Your task to perform on an android device: Search for macbook pro on bestbuy, select the first entry, add it to the cart, then select checkout. Image 0: 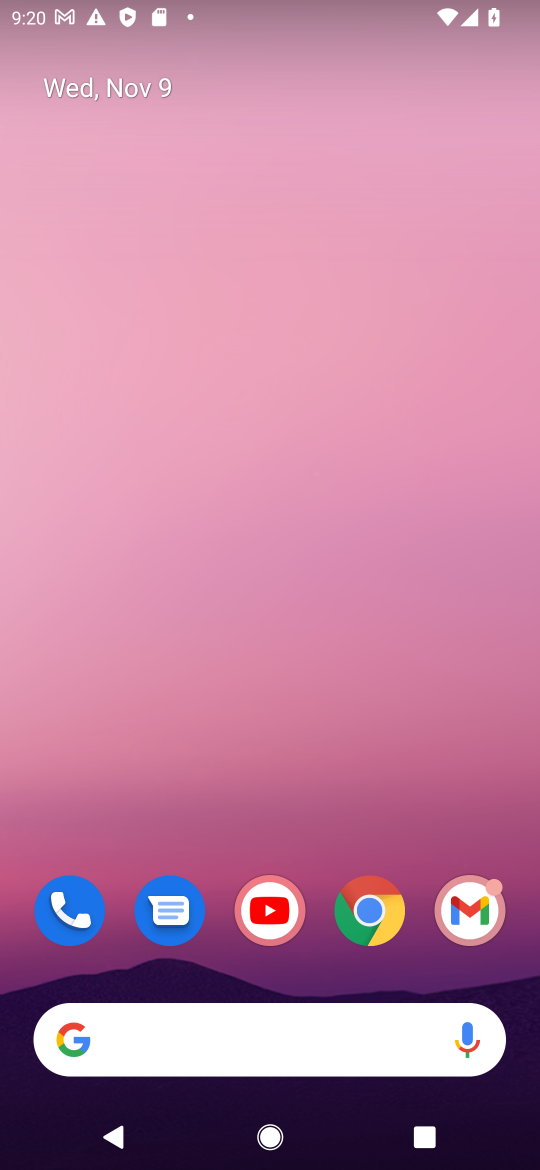
Step 0: click (366, 912)
Your task to perform on an android device: Search for macbook pro on bestbuy, select the first entry, add it to the cart, then select checkout. Image 1: 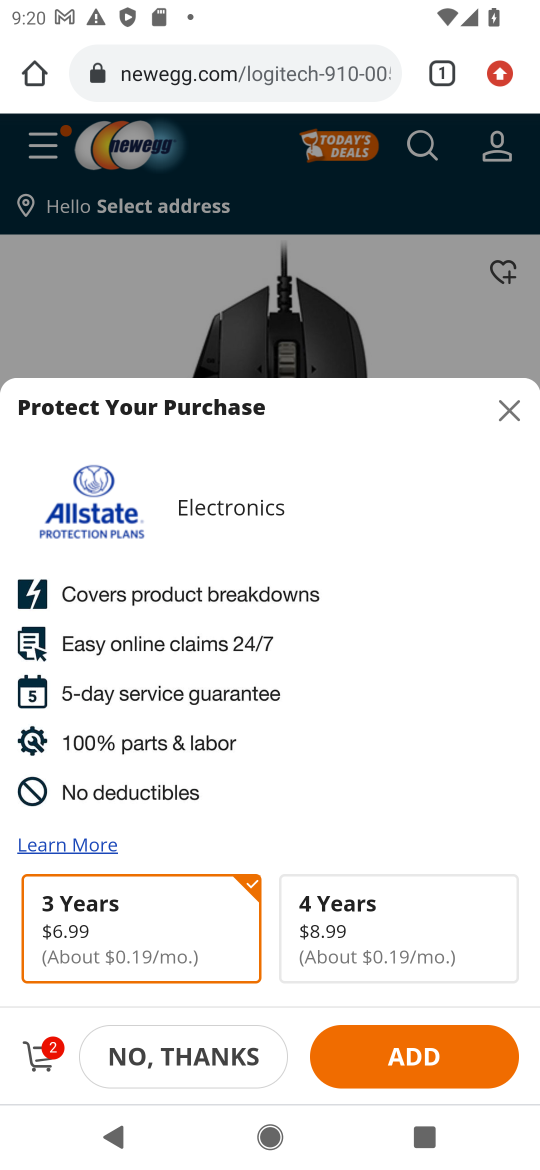
Step 1: click (206, 70)
Your task to perform on an android device: Search for macbook pro on bestbuy, select the first entry, add it to the cart, then select checkout. Image 2: 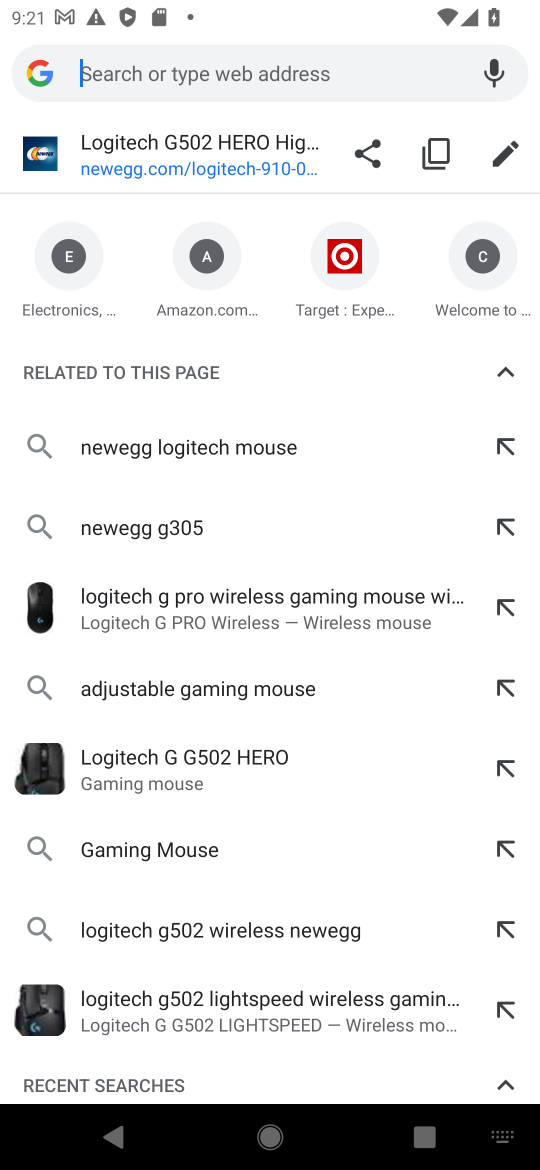
Step 2: type "bestbuy.com"
Your task to perform on an android device: Search for macbook pro on bestbuy, select the first entry, add it to the cart, then select checkout. Image 3: 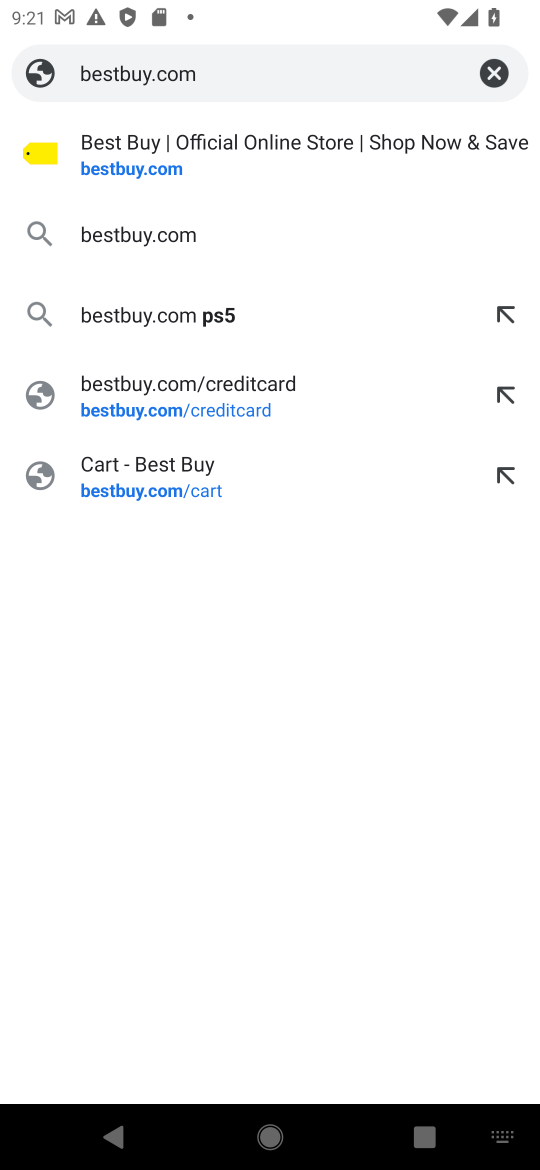
Step 3: click (110, 176)
Your task to perform on an android device: Search for macbook pro on bestbuy, select the first entry, add it to the cart, then select checkout. Image 4: 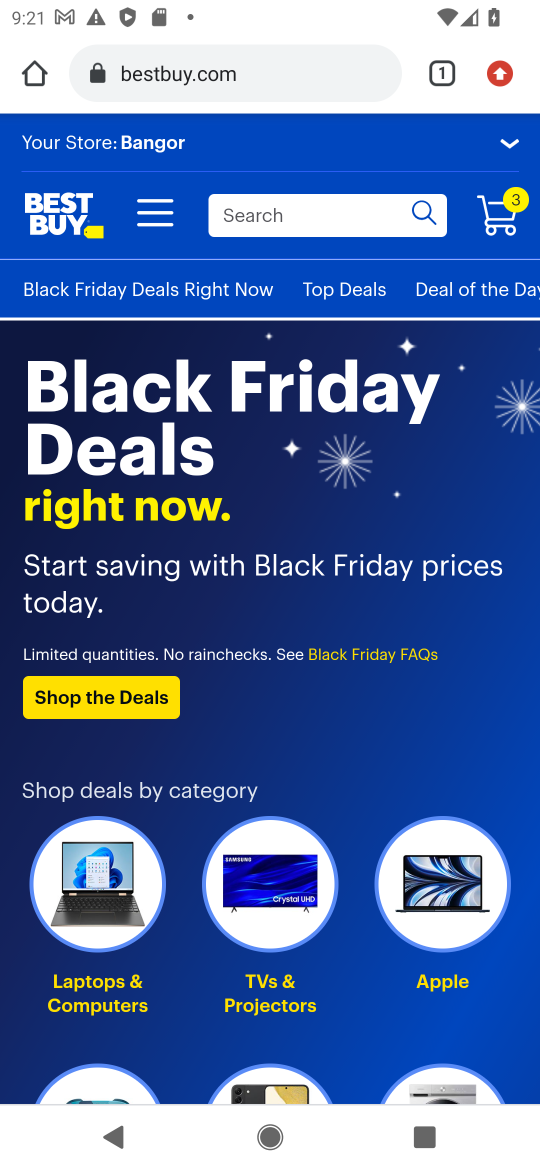
Step 4: click (230, 217)
Your task to perform on an android device: Search for macbook pro on bestbuy, select the first entry, add it to the cart, then select checkout. Image 5: 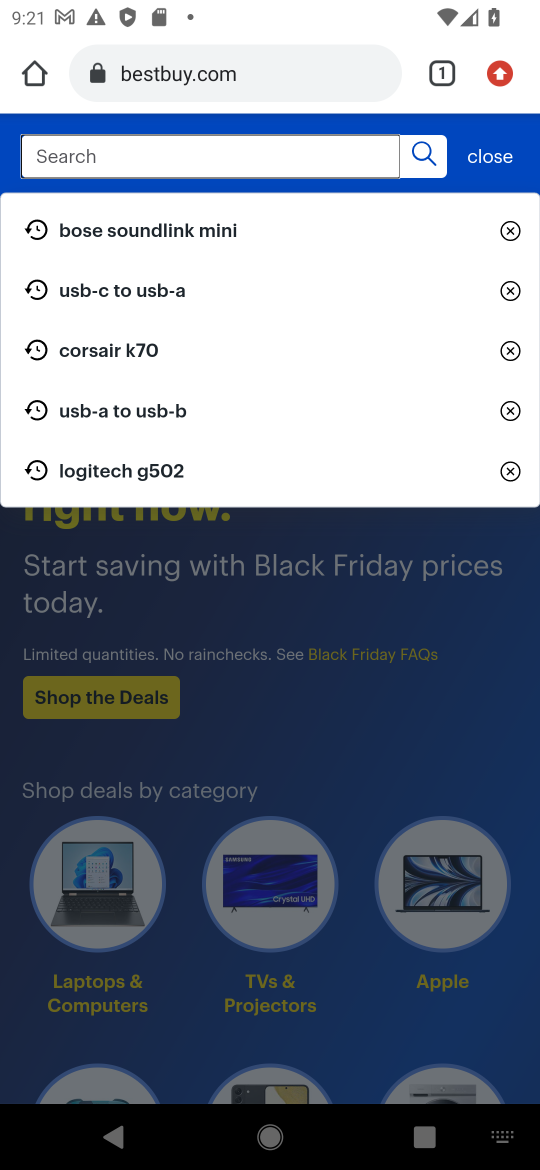
Step 5: type "macbook pro"
Your task to perform on an android device: Search for macbook pro on bestbuy, select the first entry, add it to the cart, then select checkout. Image 6: 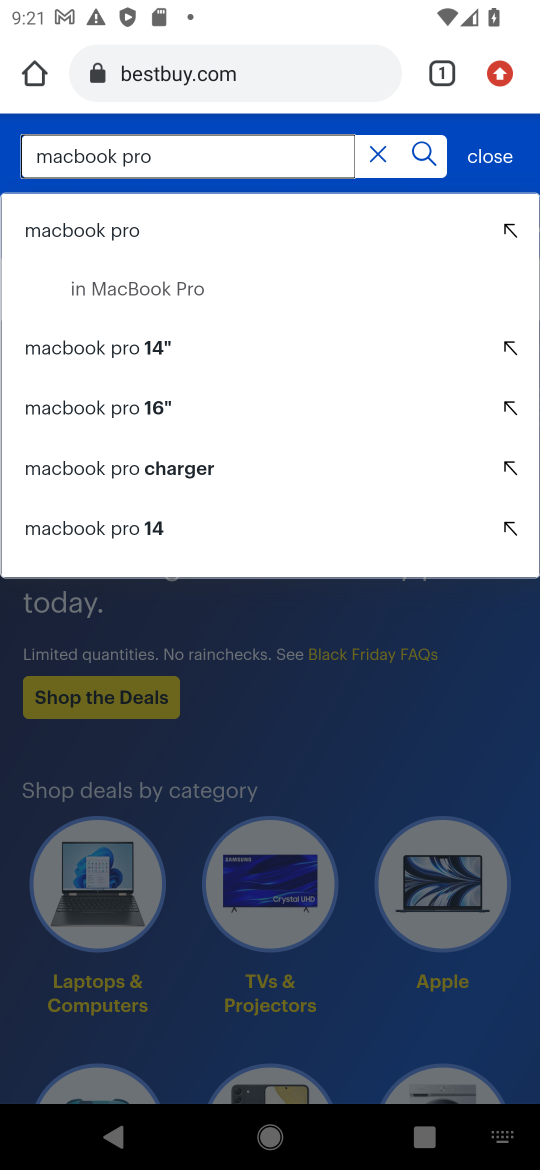
Step 6: click (90, 239)
Your task to perform on an android device: Search for macbook pro on bestbuy, select the first entry, add it to the cart, then select checkout. Image 7: 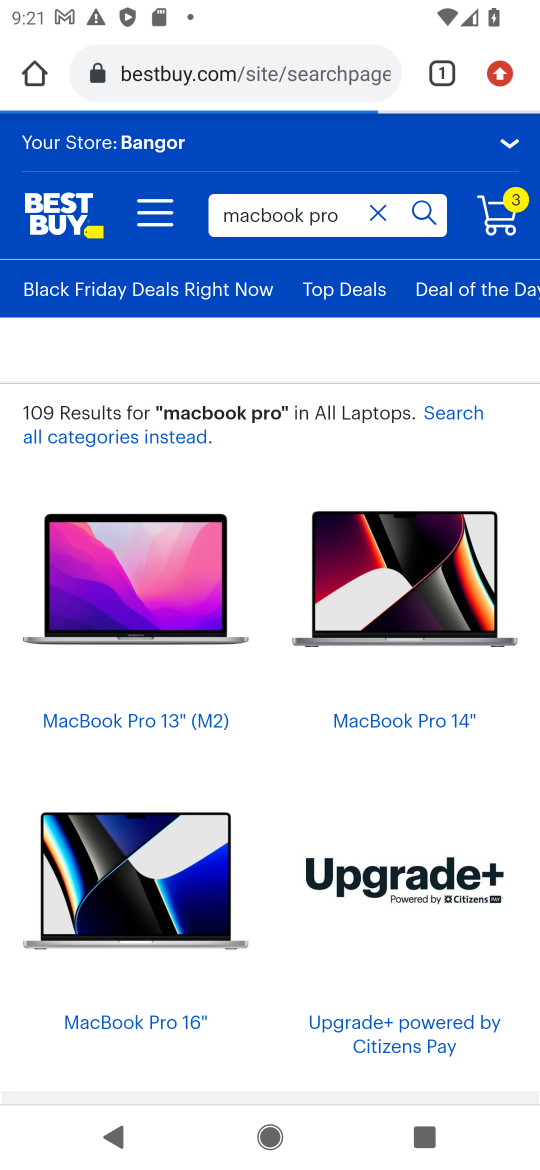
Step 7: drag from (221, 692) to (231, 432)
Your task to perform on an android device: Search for macbook pro on bestbuy, select the first entry, add it to the cart, then select checkout. Image 8: 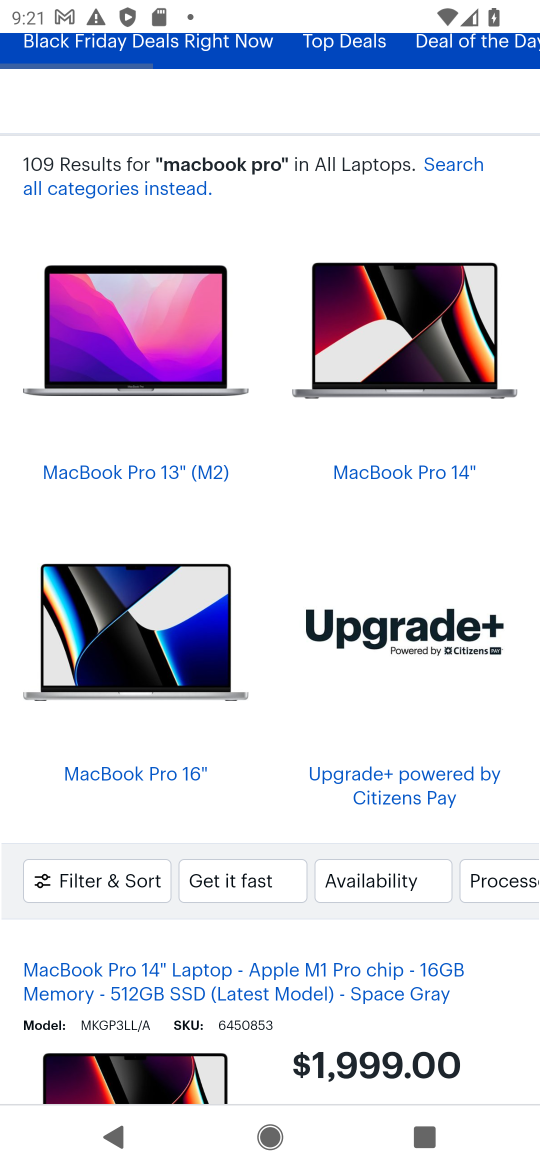
Step 8: drag from (232, 874) to (244, 355)
Your task to perform on an android device: Search for macbook pro on bestbuy, select the first entry, add it to the cart, then select checkout. Image 9: 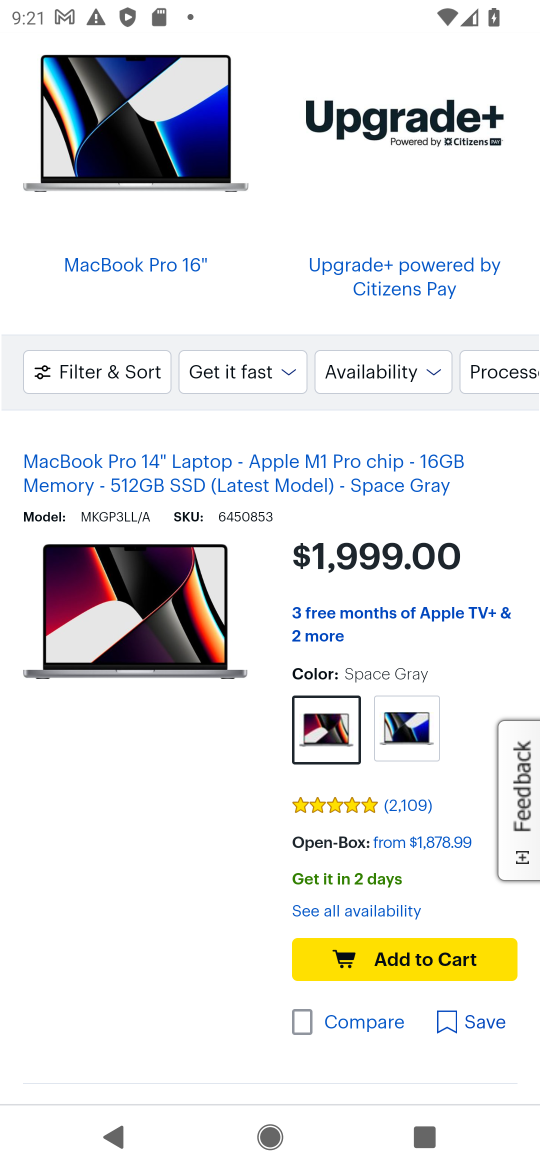
Step 9: click (452, 964)
Your task to perform on an android device: Search for macbook pro on bestbuy, select the first entry, add it to the cart, then select checkout. Image 10: 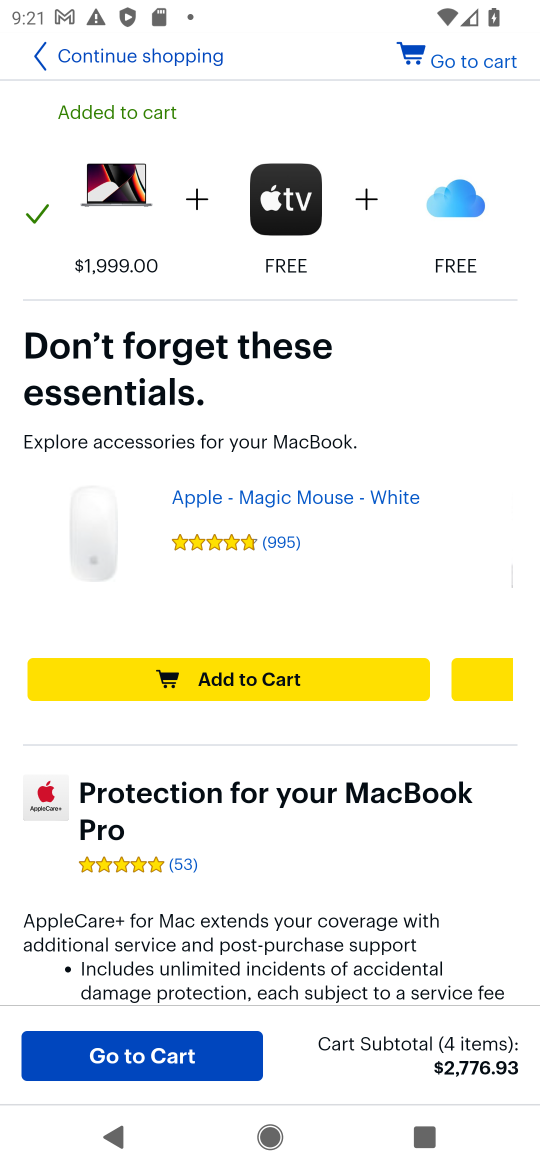
Step 10: click (467, 64)
Your task to perform on an android device: Search for macbook pro on bestbuy, select the first entry, add it to the cart, then select checkout. Image 11: 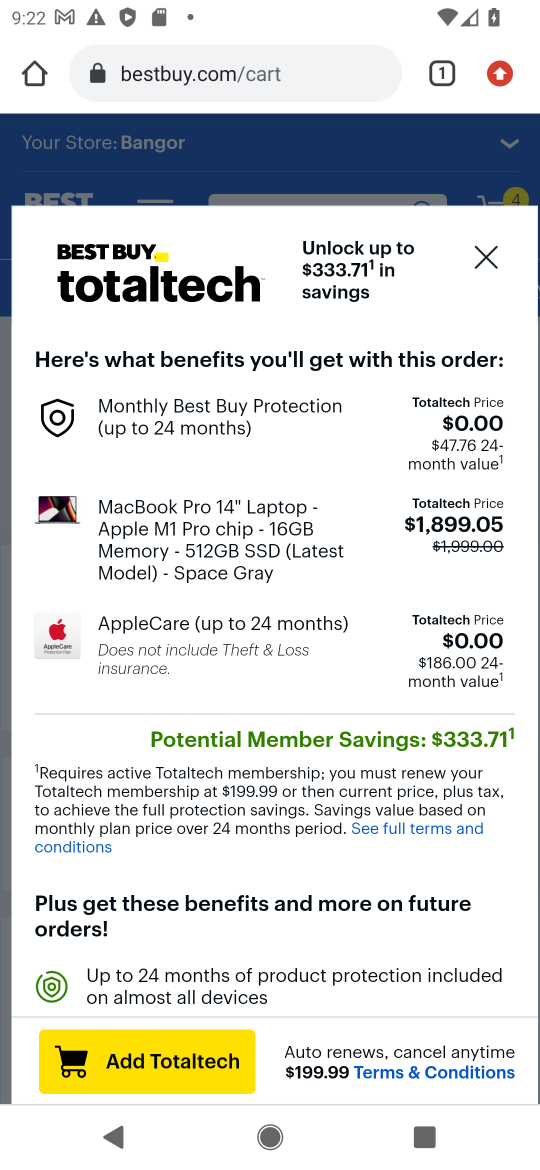
Step 11: click (476, 264)
Your task to perform on an android device: Search for macbook pro on bestbuy, select the first entry, add it to the cart, then select checkout. Image 12: 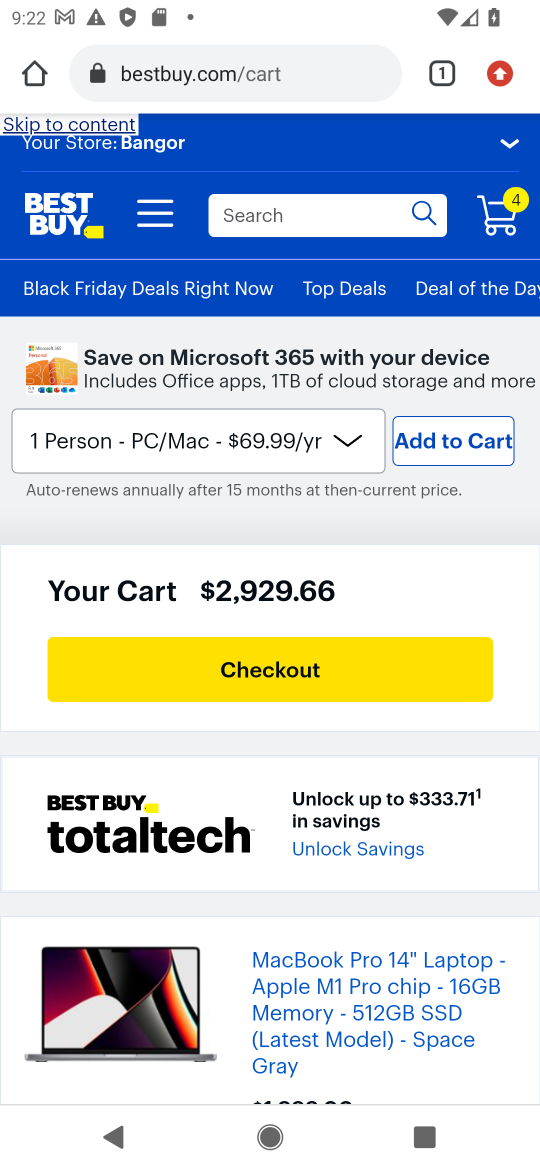
Step 12: click (249, 666)
Your task to perform on an android device: Search for macbook pro on bestbuy, select the first entry, add it to the cart, then select checkout. Image 13: 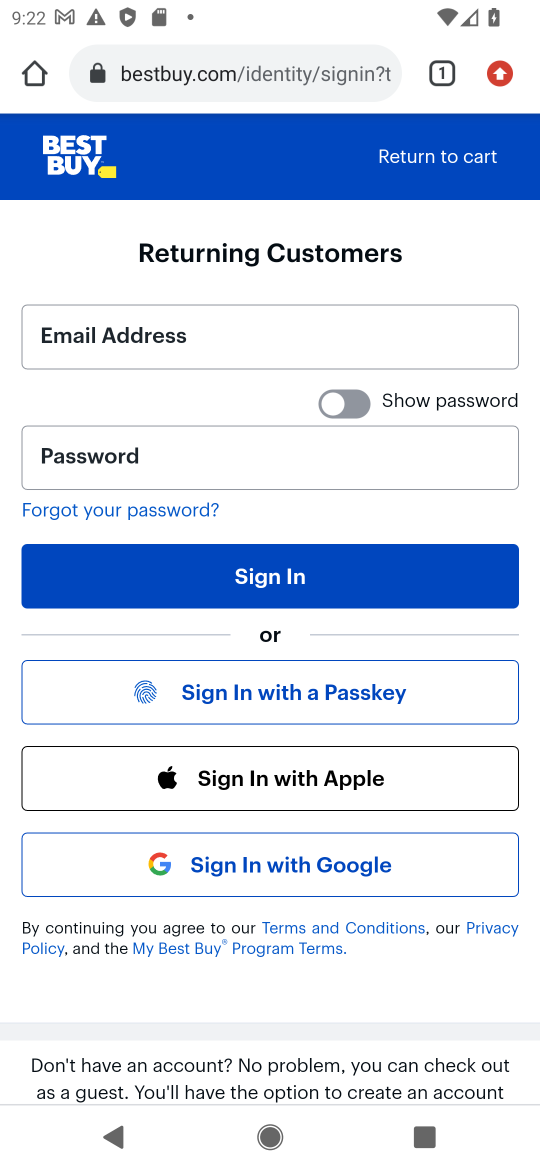
Step 13: task complete